Your task to perform on an android device: Open settings on Google Maps Image 0: 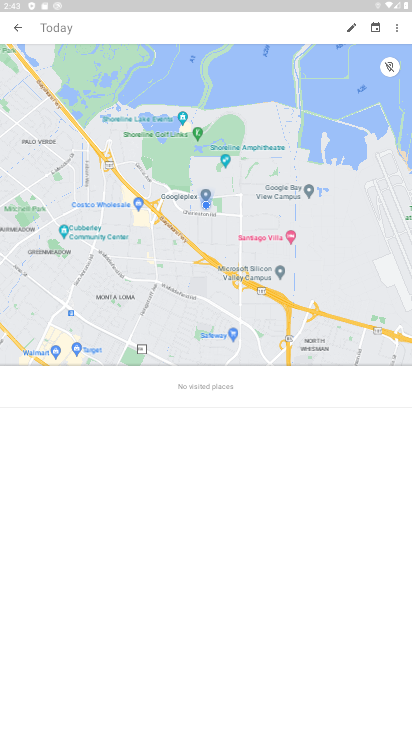
Step 0: click (133, 674)
Your task to perform on an android device: Open settings on Google Maps Image 1: 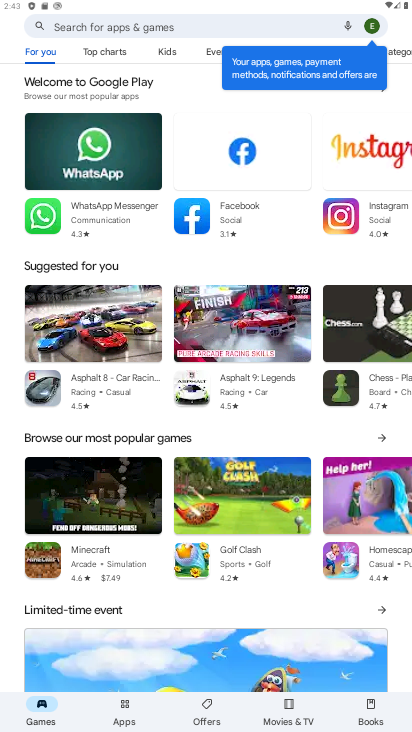
Step 1: press home button
Your task to perform on an android device: Open settings on Google Maps Image 2: 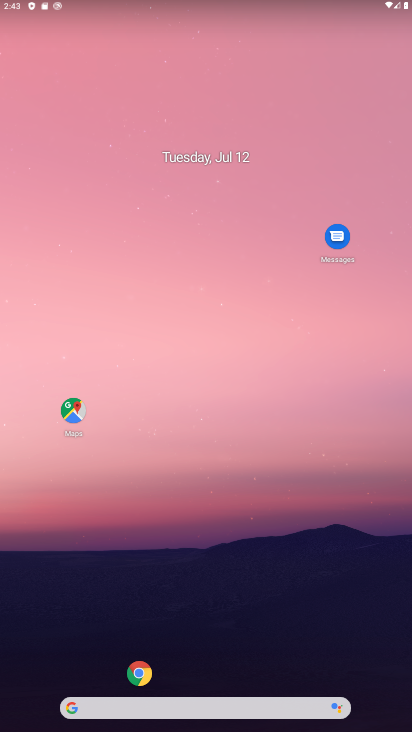
Step 2: click (75, 409)
Your task to perform on an android device: Open settings on Google Maps Image 3: 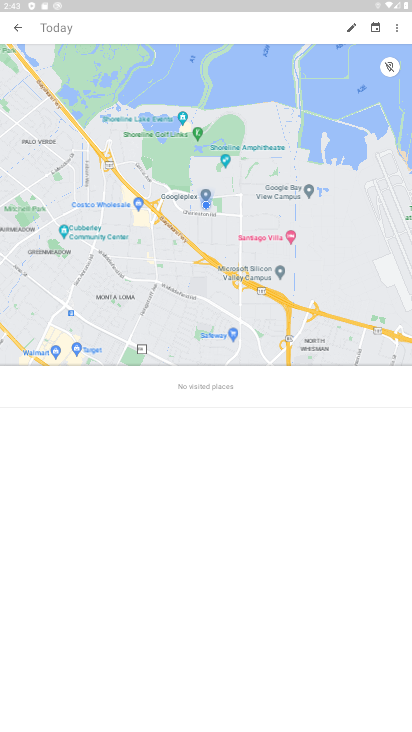
Step 3: click (15, 28)
Your task to perform on an android device: Open settings on Google Maps Image 4: 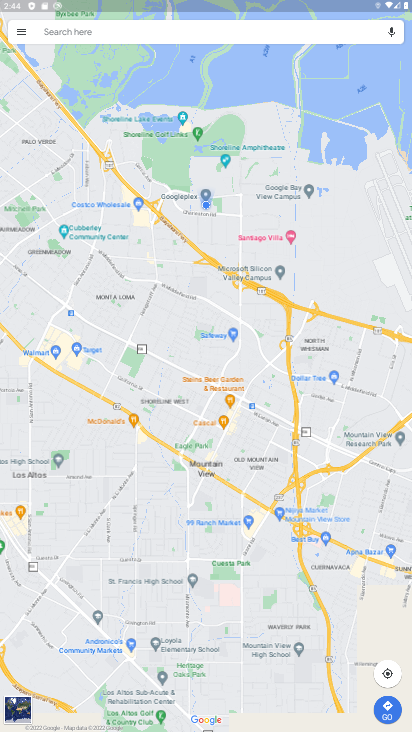
Step 4: click (13, 26)
Your task to perform on an android device: Open settings on Google Maps Image 5: 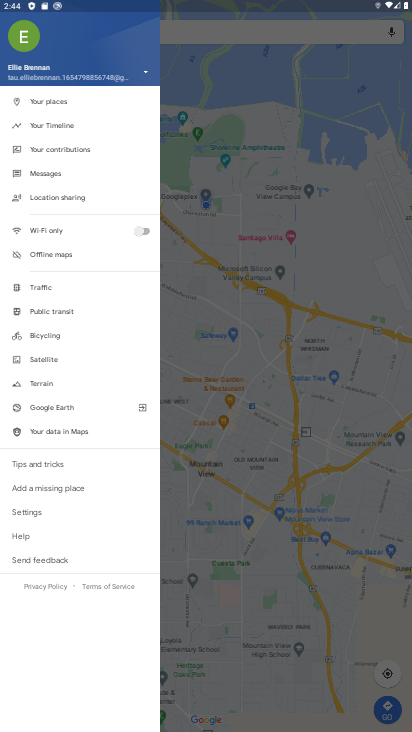
Step 5: click (36, 510)
Your task to perform on an android device: Open settings on Google Maps Image 6: 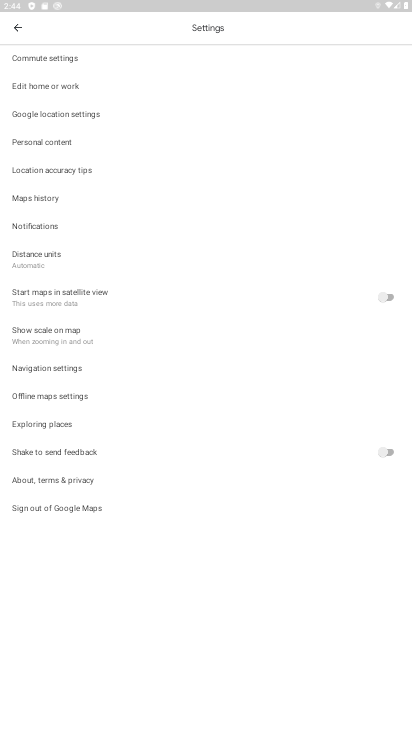
Step 6: task complete